Your task to perform on an android device: see creations saved in the google photos Image 0: 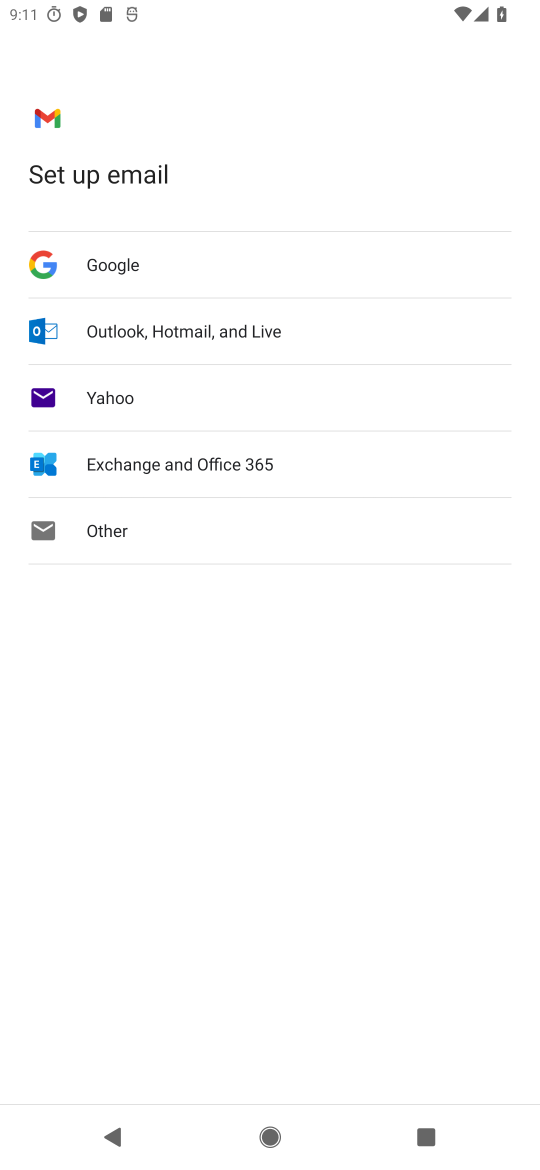
Step 0: press home button
Your task to perform on an android device: see creations saved in the google photos Image 1: 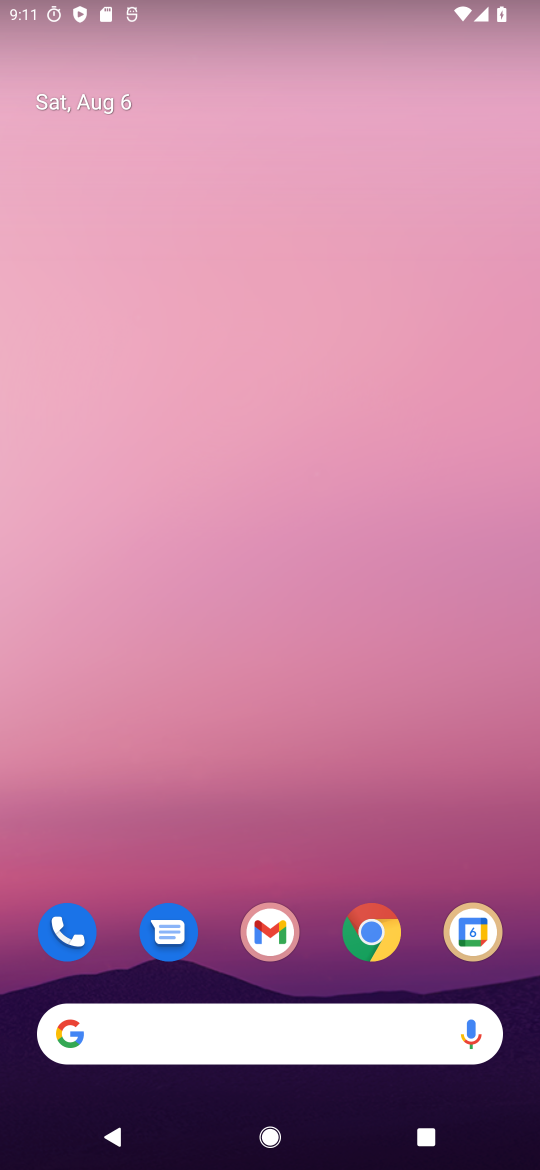
Step 1: drag from (238, 1033) to (322, 181)
Your task to perform on an android device: see creations saved in the google photos Image 2: 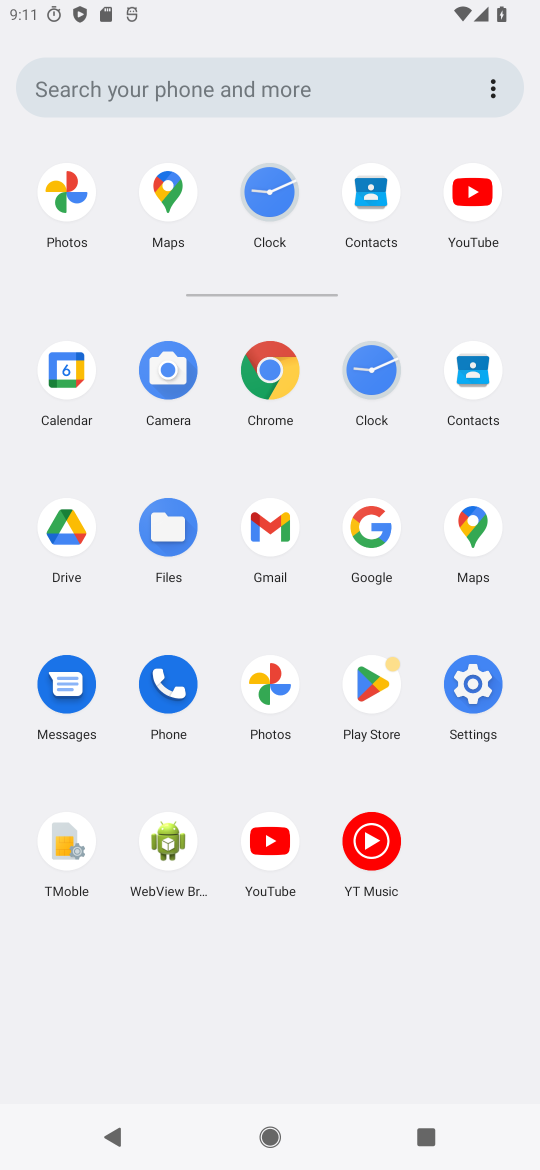
Step 2: click (269, 675)
Your task to perform on an android device: see creations saved in the google photos Image 3: 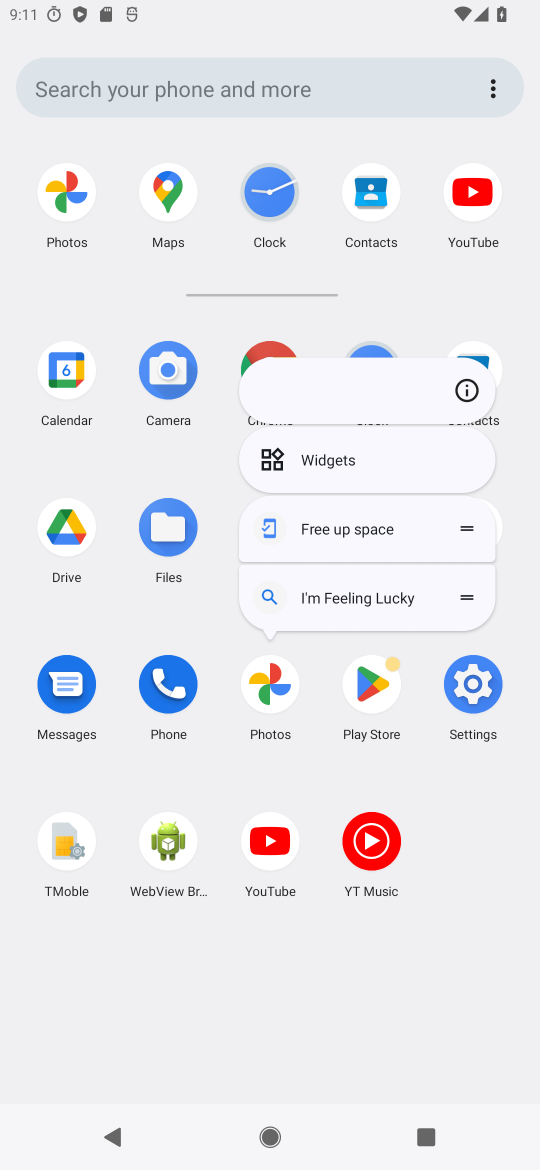
Step 3: click (279, 685)
Your task to perform on an android device: see creations saved in the google photos Image 4: 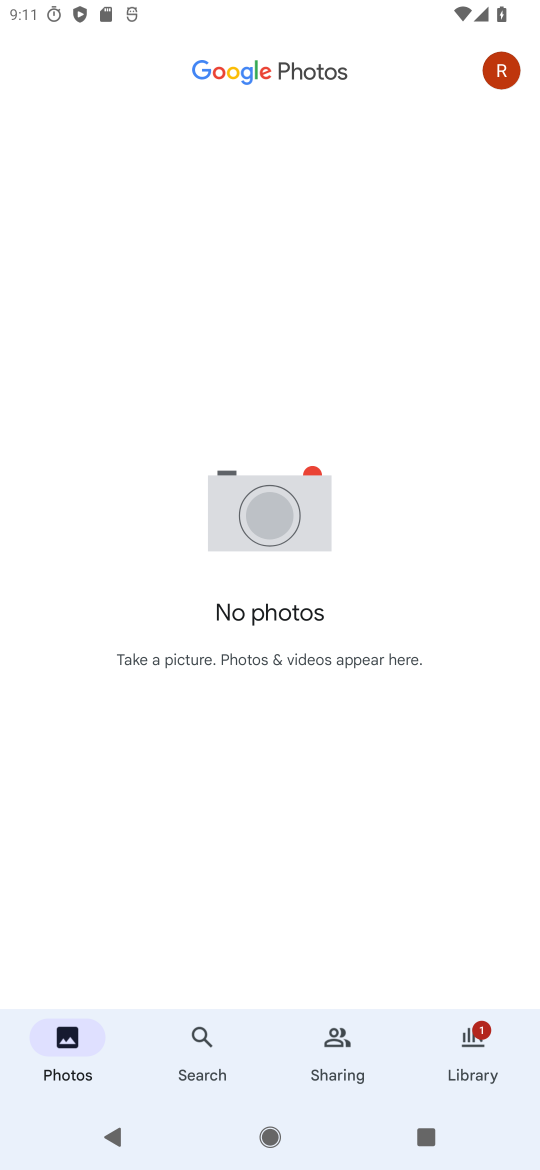
Step 4: click (221, 1067)
Your task to perform on an android device: see creations saved in the google photos Image 5: 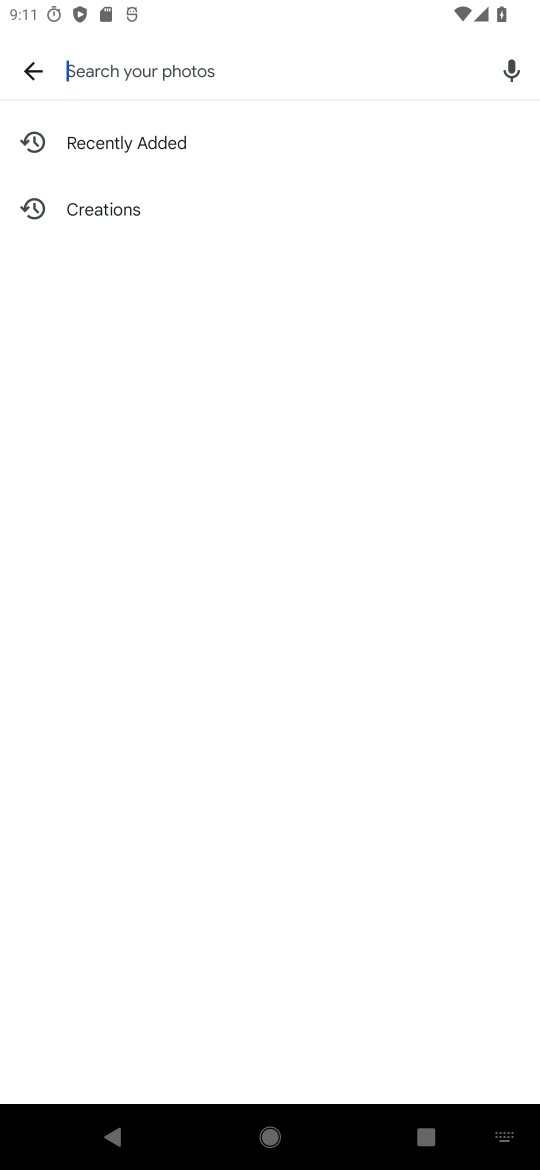
Step 5: click (115, 203)
Your task to perform on an android device: see creations saved in the google photos Image 6: 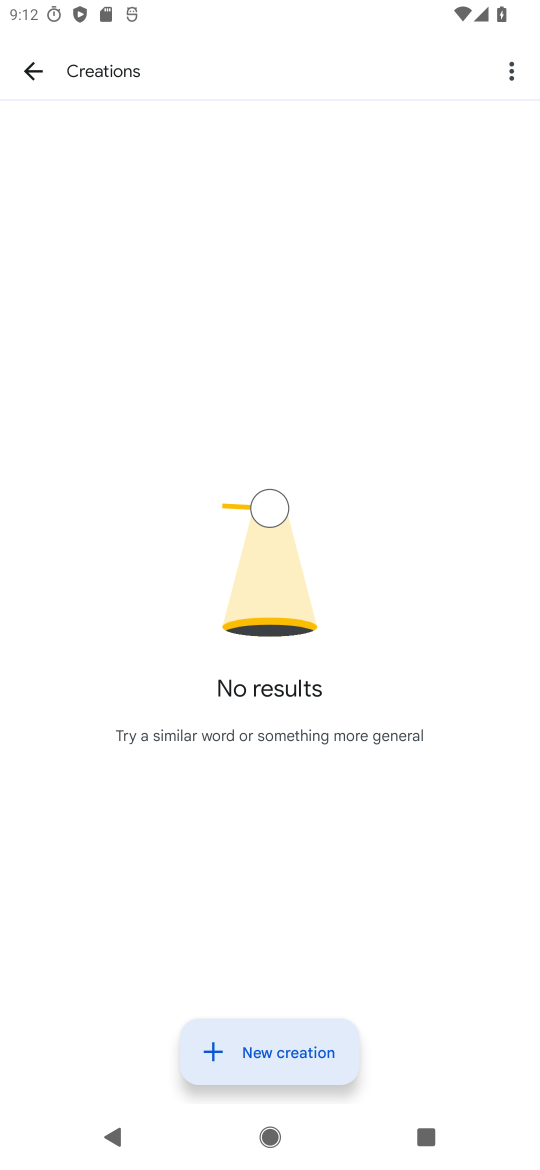
Step 6: task complete